Your task to perform on an android device: see sites visited before in the chrome app Image 0: 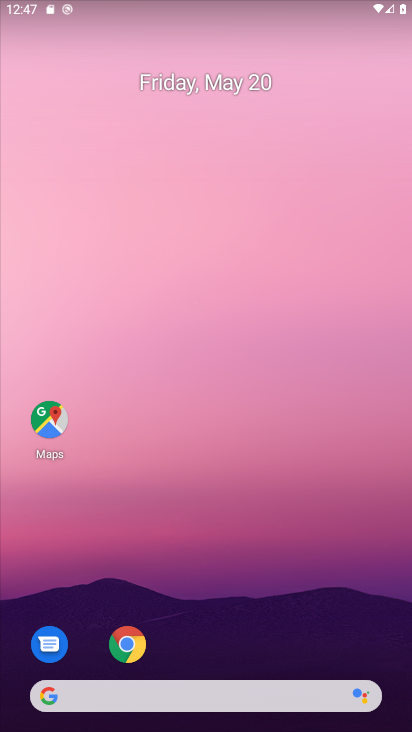
Step 0: drag from (320, 527) to (269, 31)
Your task to perform on an android device: see sites visited before in the chrome app Image 1: 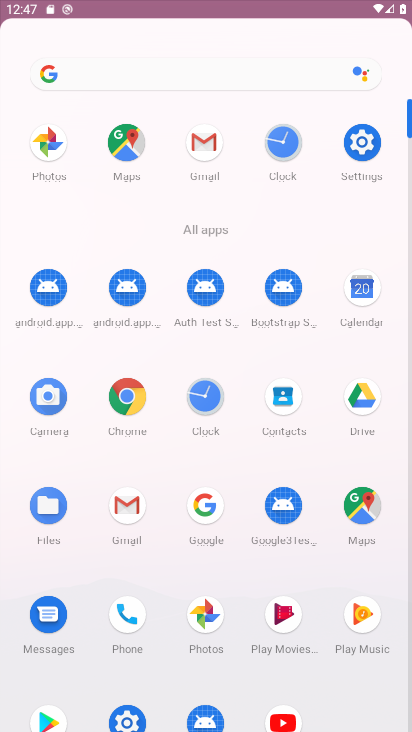
Step 1: drag from (298, 625) to (212, 83)
Your task to perform on an android device: see sites visited before in the chrome app Image 2: 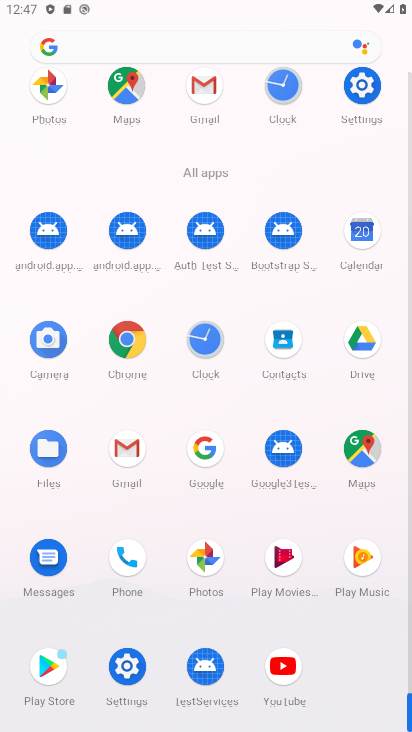
Step 2: click (119, 335)
Your task to perform on an android device: see sites visited before in the chrome app Image 3: 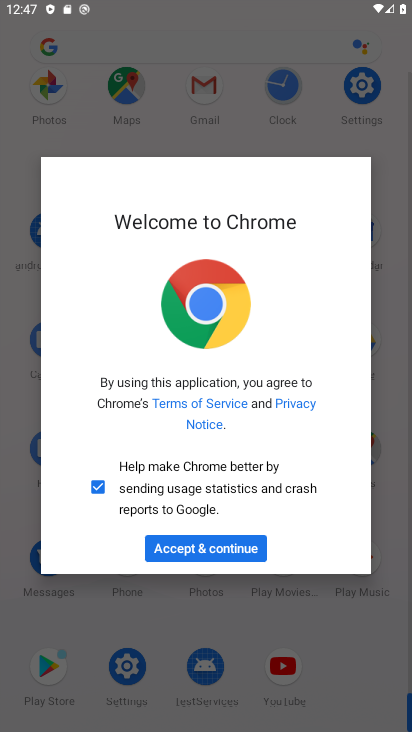
Step 3: click (179, 550)
Your task to perform on an android device: see sites visited before in the chrome app Image 4: 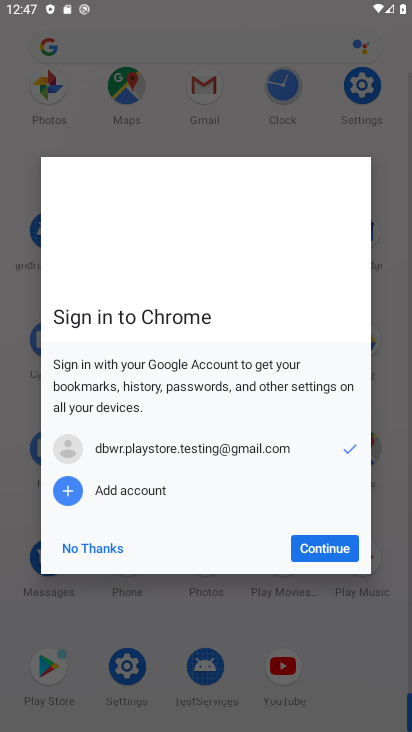
Step 4: click (83, 565)
Your task to perform on an android device: see sites visited before in the chrome app Image 5: 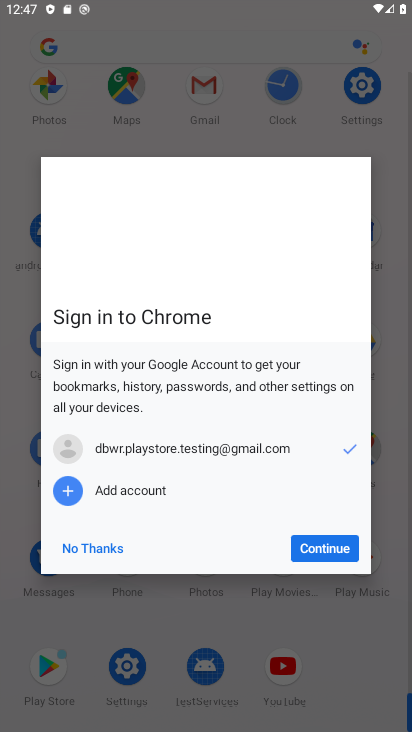
Step 5: click (77, 557)
Your task to perform on an android device: see sites visited before in the chrome app Image 6: 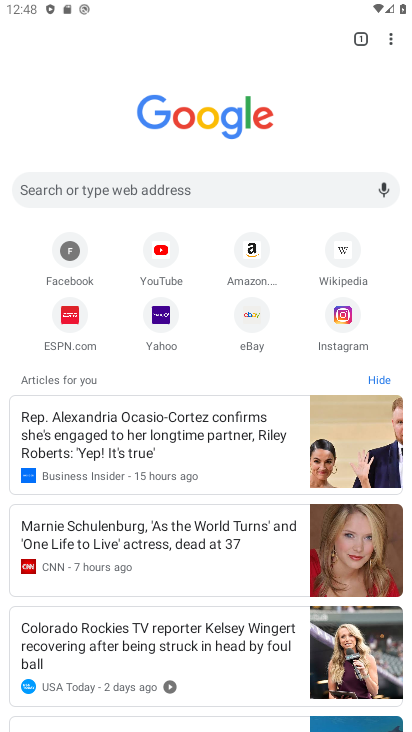
Step 6: task complete